Your task to perform on an android device: check android version Image 0: 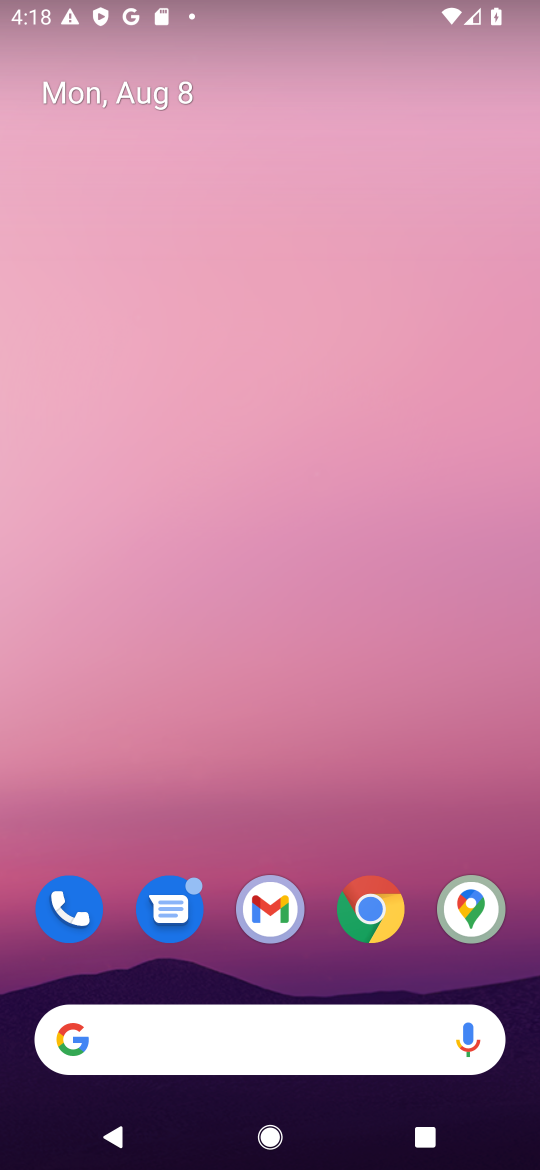
Step 0: press home button
Your task to perform on an android device: check android version Image 1: 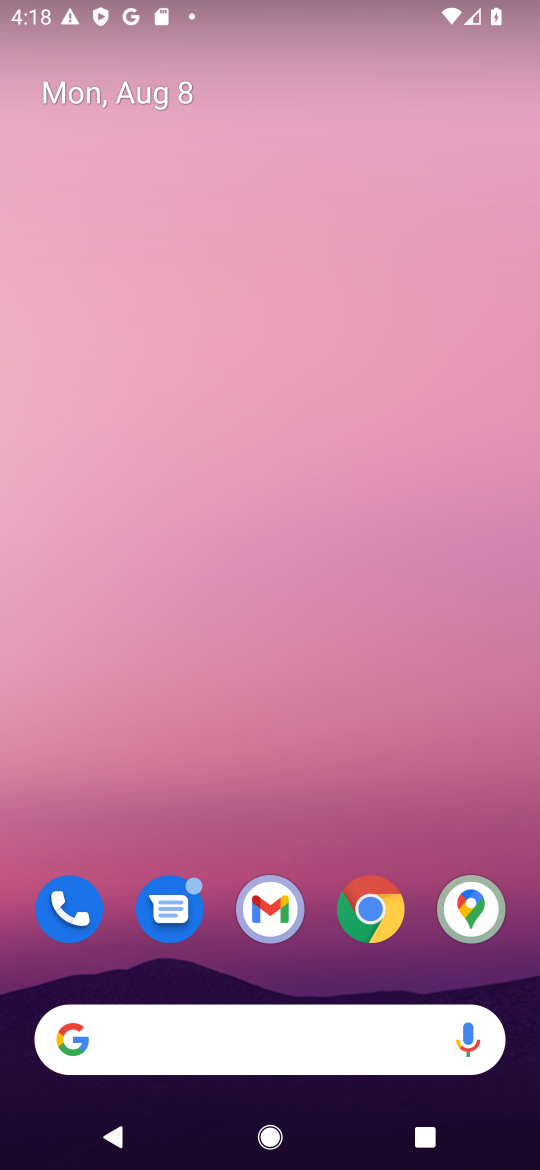
Step 1: drag from (319, 1043) to (411, 10)
Your task to perform on an android device: check android version Image 2: 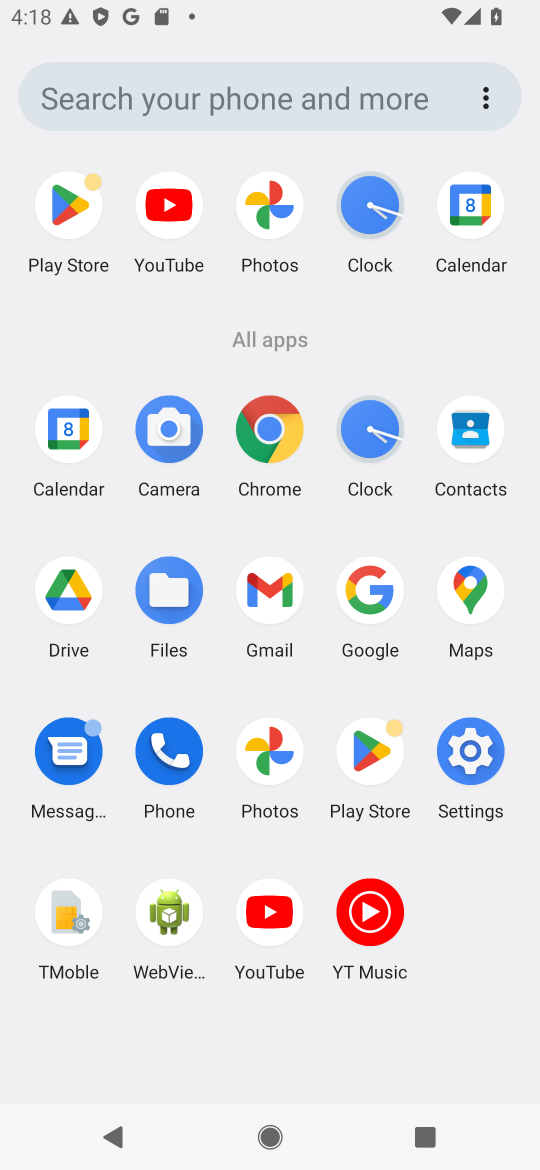
Step 2: click (478, 745)
Your task to perform on an android device: check android version Image 3: 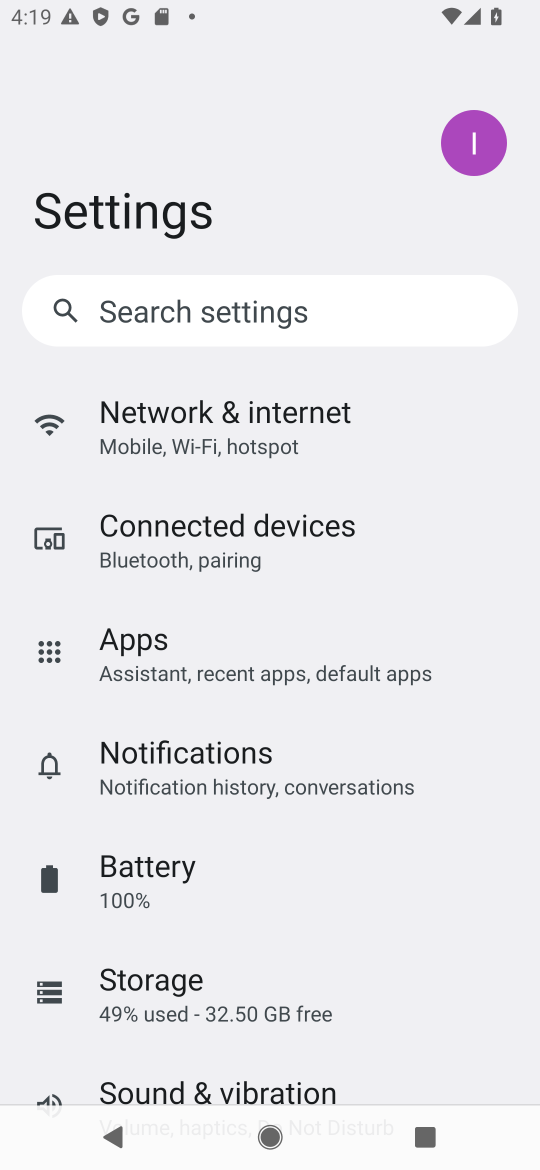
Step 3: drag from (331, 959) to (503, 227)
Your task to perform on an android device: check android version Image 4: 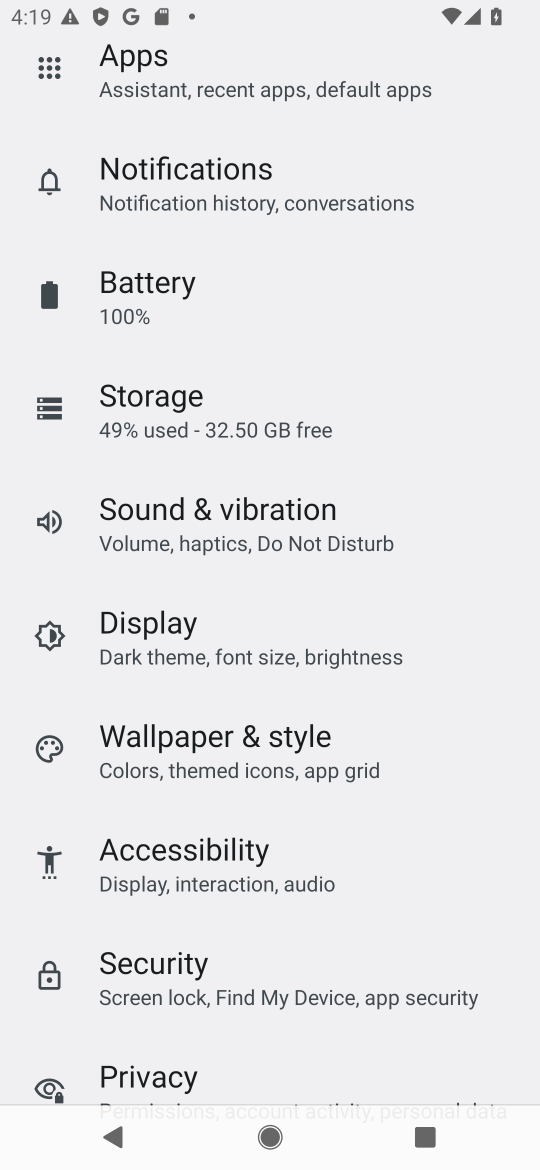
Step 4: drag from (303, 1032) to (528, 229)
Your task to perform on an android device: check android version Image 5: 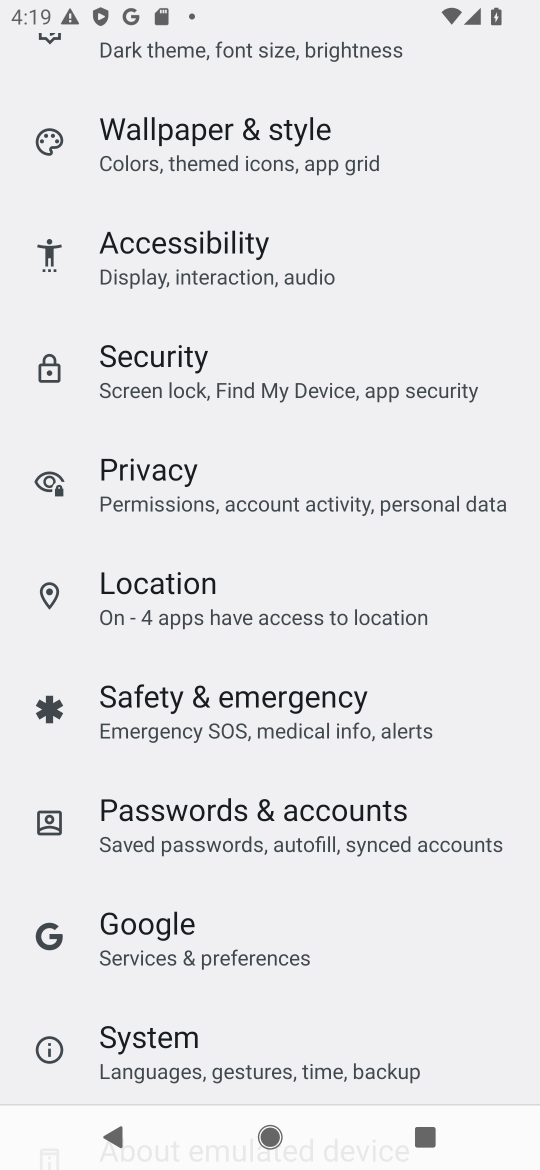
Step 5: drag from (305, 973) to (416, 114)
Your task to perform on an android device: check android version Image 6: 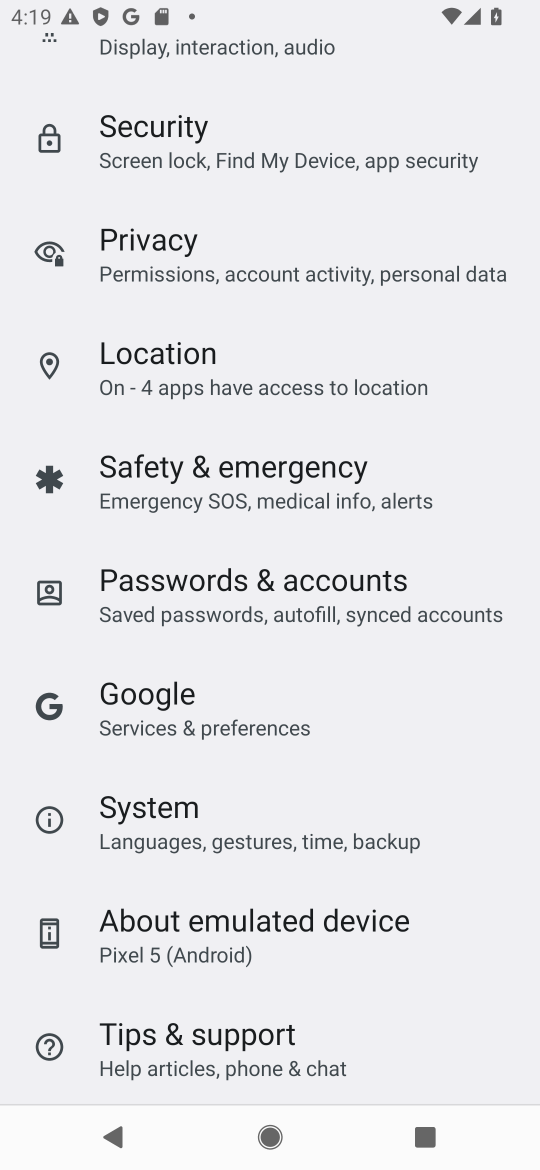
Step 6: click (265, 931)
Your task to perform on an android device: check android version Image 7: 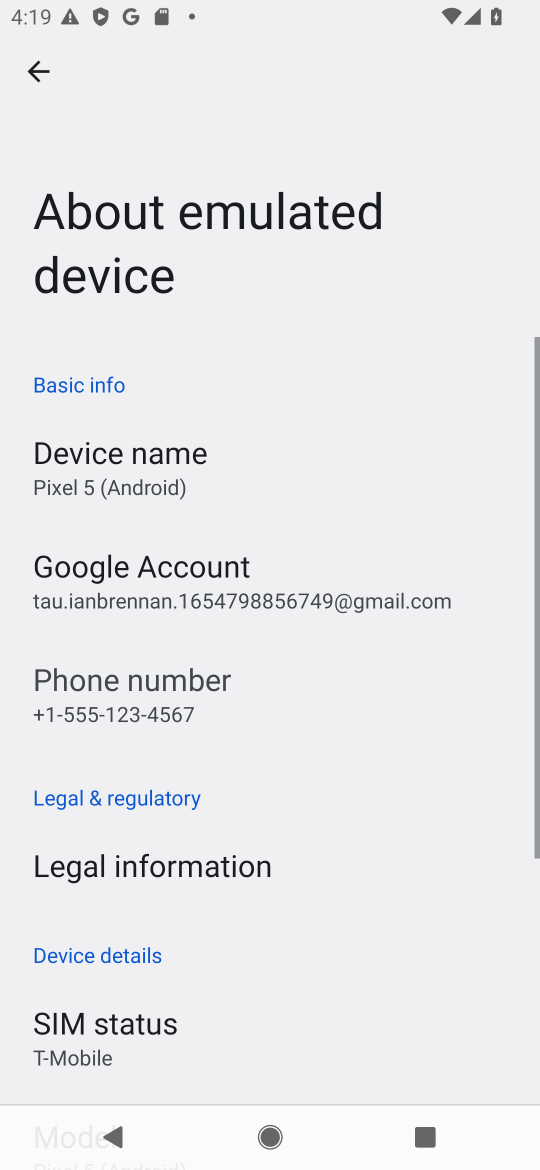
Step 7: drag from (296, 976) to (482, 153)
Your task to perform on an android device: check android version Image 8: 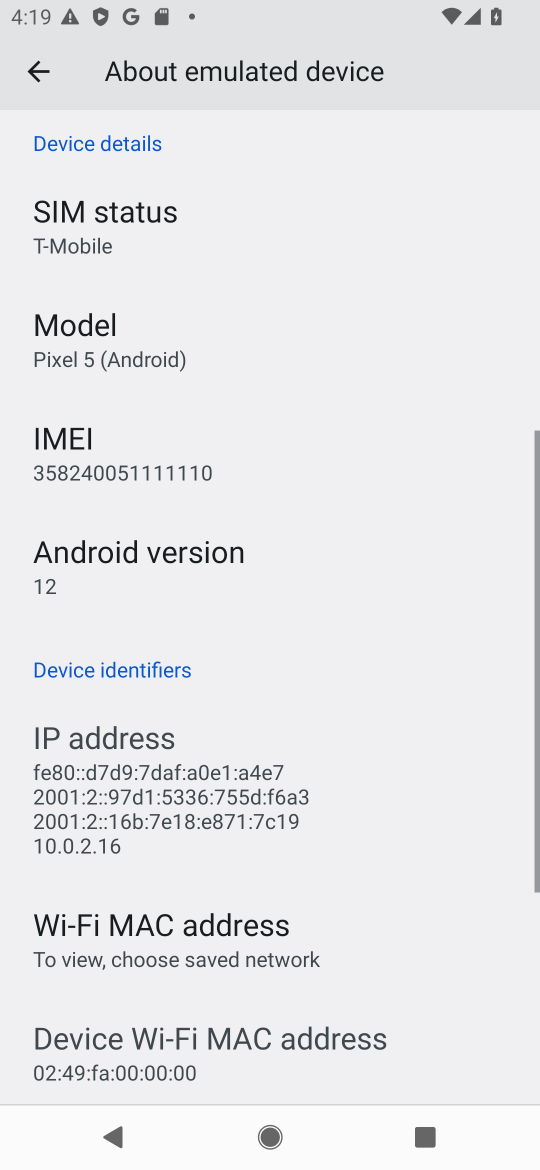
Step 8: click (150, 552)
Your task to perform on an android device: check android version Image 9: 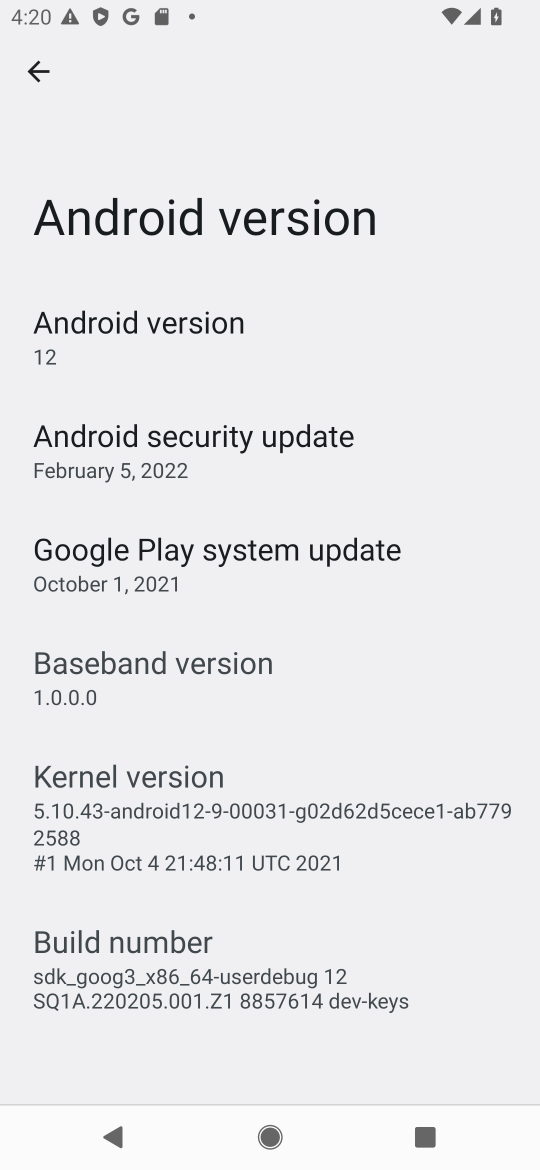
Step 9: task complete